Your task to perform on an android device: visit the assistant section in the google photos Image 0: 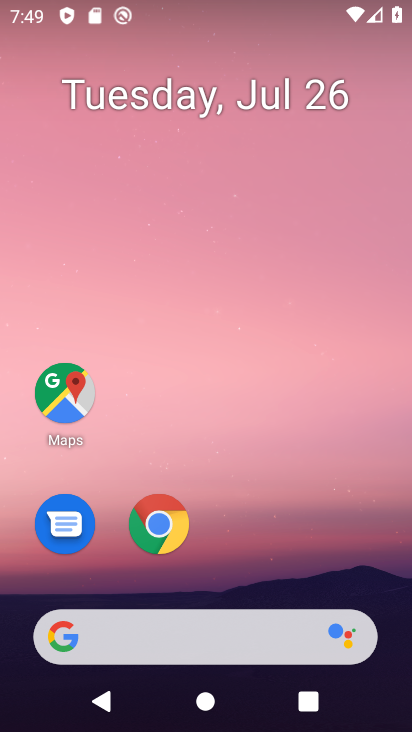
Step 0: drag from (239, 524) to (260, 0)
Your task to perform on an android device: visit the assistant section in the google photos Image 1: 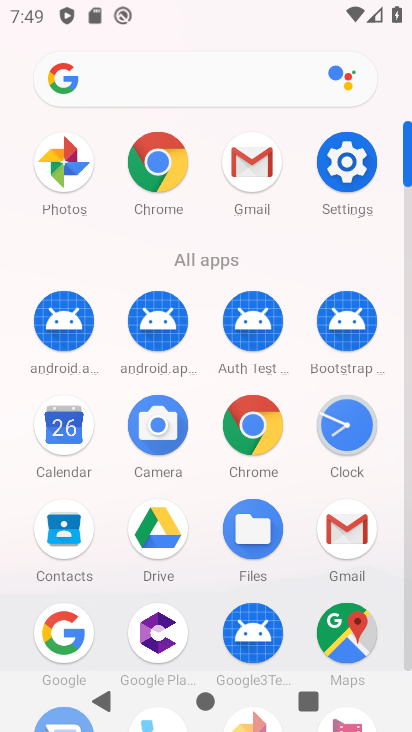
Step 1: click (63, 158)
Your task to perform on an android device: visit the assistant section in the google photos Image 2: 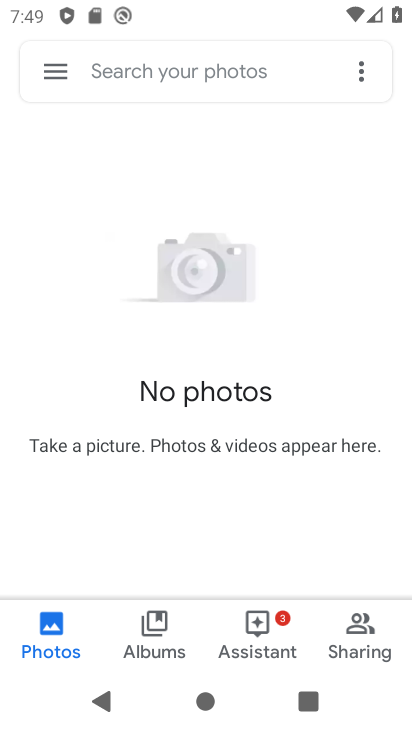
Step 2: click (260, 624)
Your task to perform on an android device: visit the assistant section in the google photos Image 3: 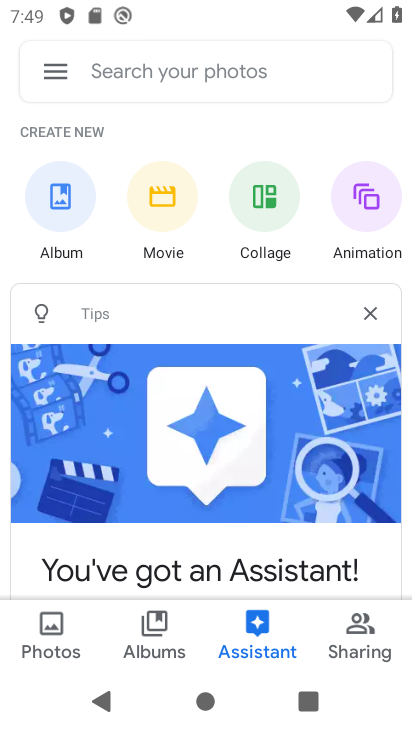
Step 3: task complete